Your task to perform on an android device: Go to Google maps Image 0: 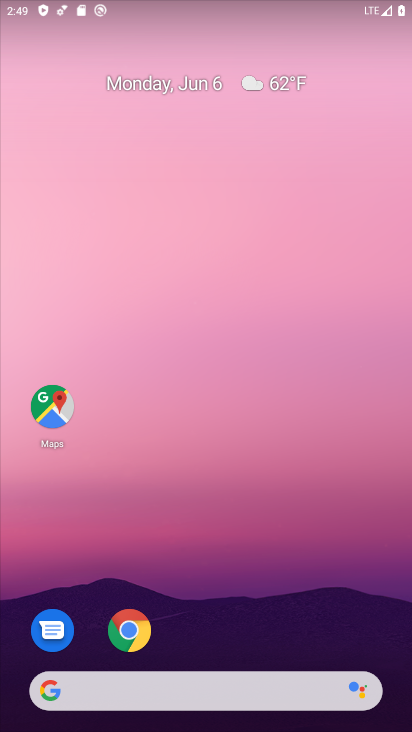
Step 0: press home button
Your task to perform on an android device: Go to Google maps Image 1: 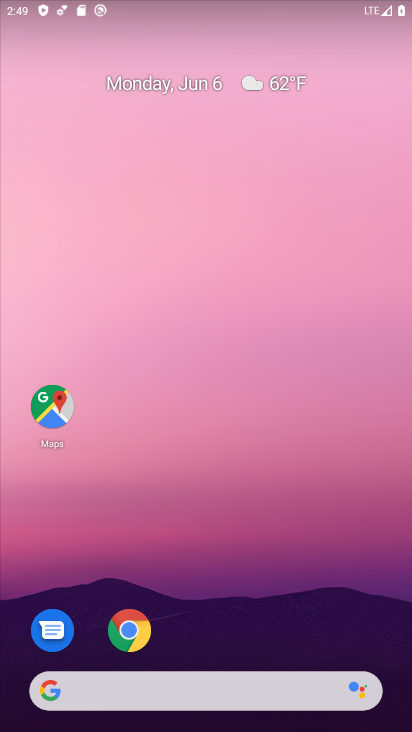
Step 1: click (319, 617)
Your task to perform on an android device: Go to Google maps Image 2: 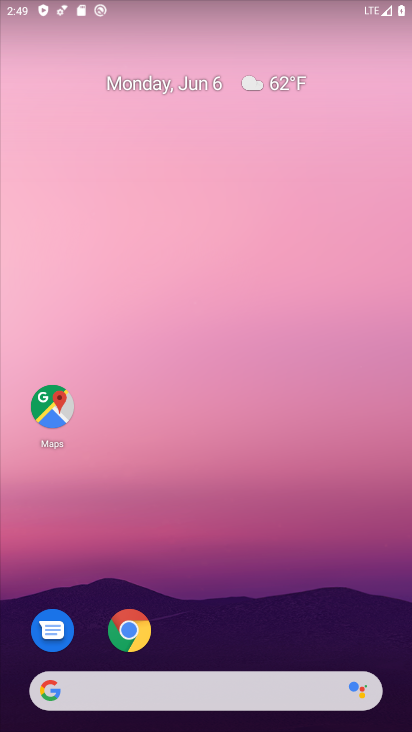
Step 2: click (56, 394)
Your task to perform on an android device: Go to Google maps Image 3: 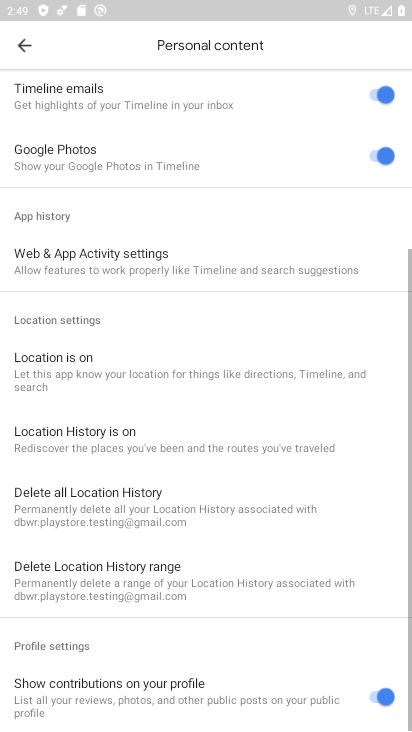
Step 3: task complete